Your task to perform on an android device: Do I have any events tomorrow? Image 0: 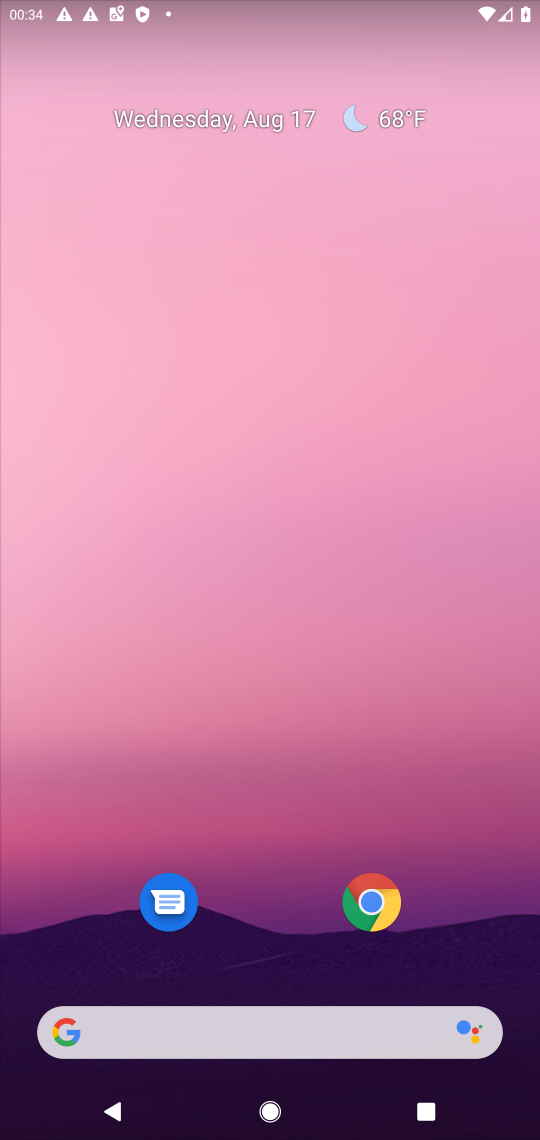
Step 0: drag from (278, 953) to (446, 56)
Your task to perform on an android device: Do I have any events tomorrow? Image 1: 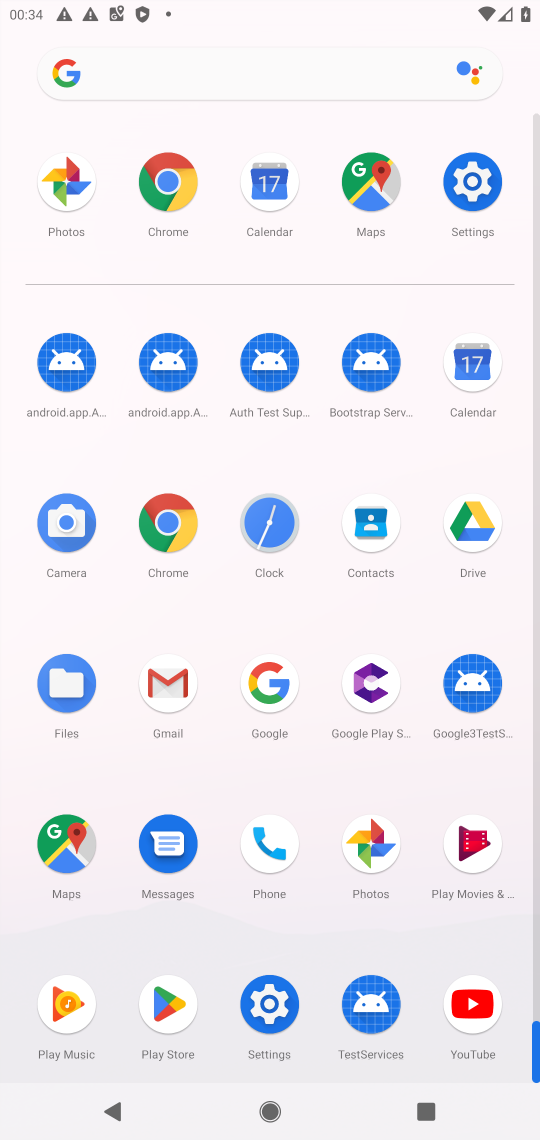
Step 1: click (479, 381)
Your task to perform on an android device: Do I have any events tomorrow? Image 2: 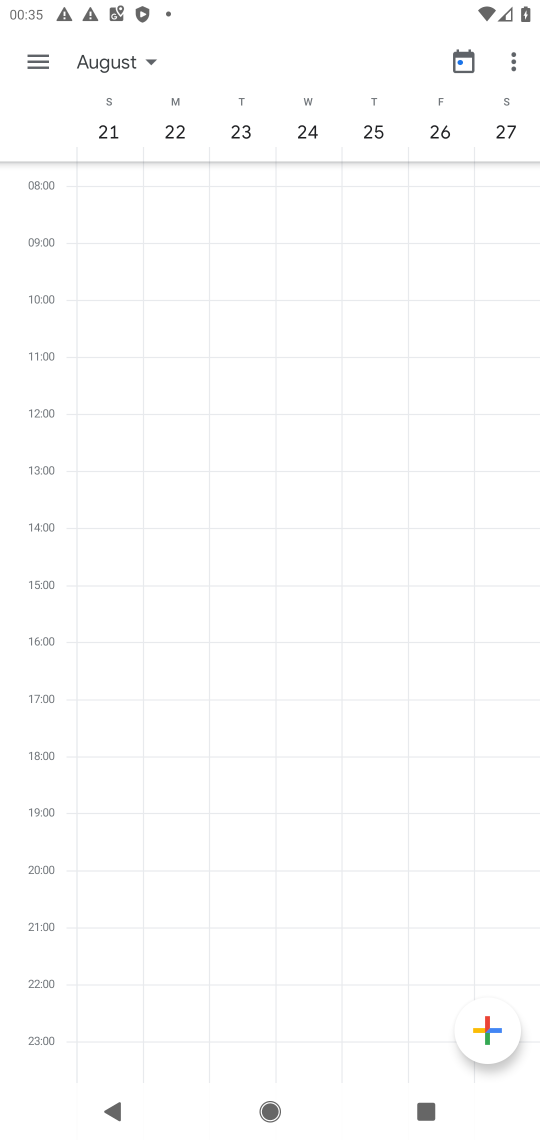
Step 2: click (32, 57)
Your task to perform on an android device: Do I have any events tomorrow? Image 3: 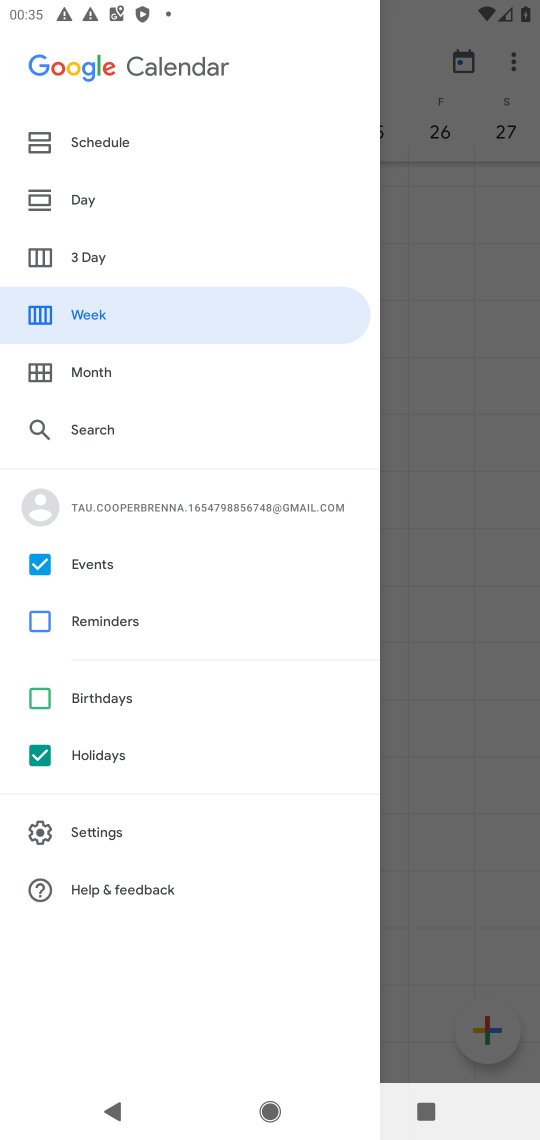
Step 3: click (88, 759)
Your task to perform on an android device: Do I have any events tomorrow? Image 4: 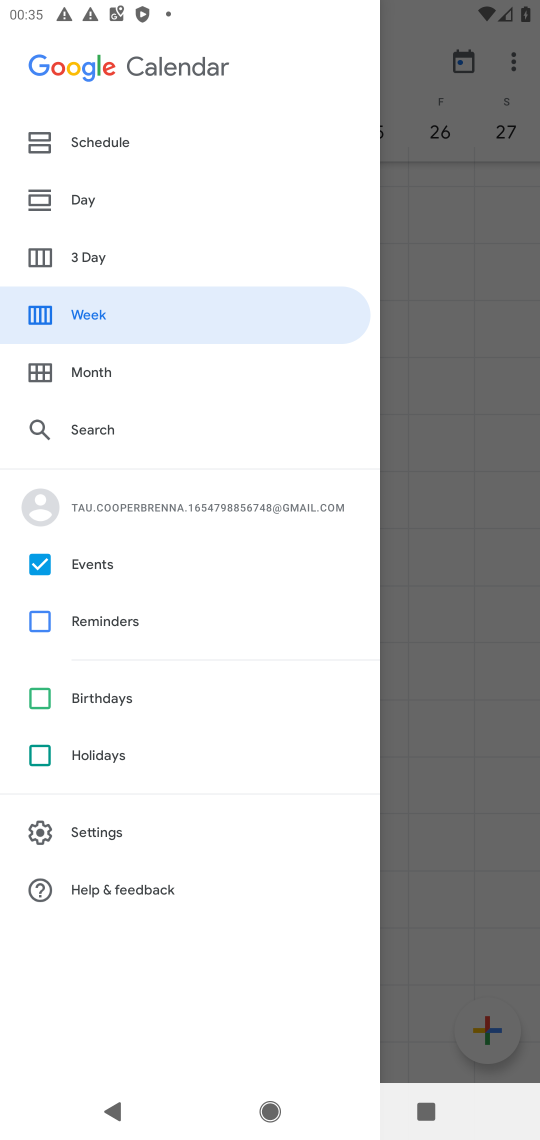
Step 4: click (103, 257)
Your task to perform on an android device: Do I have any events tomorrow? Image 5: 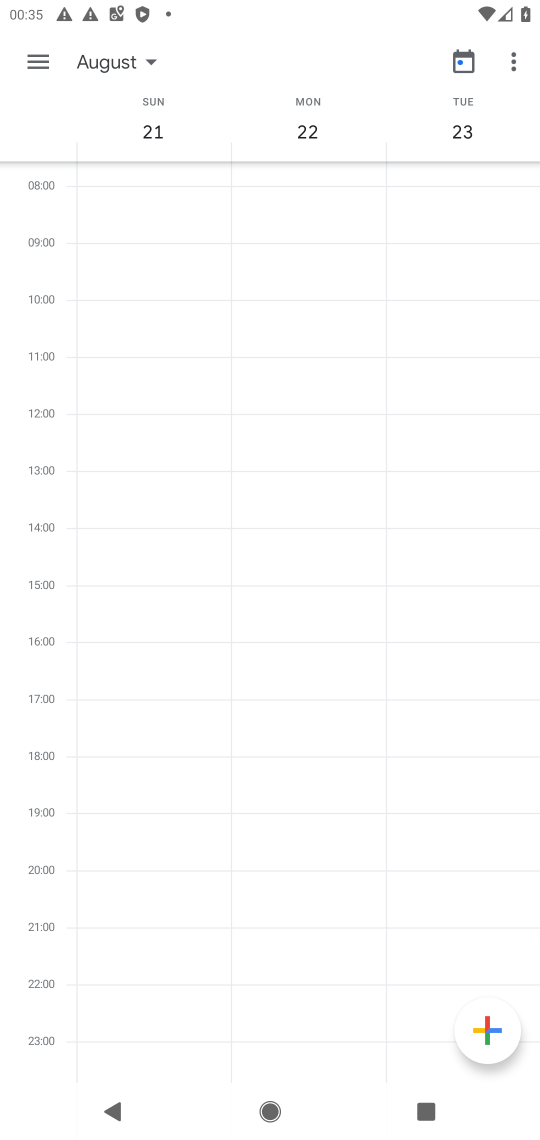
Step 5: task complete